Your task to perform on an android device: toggle data saver in the chrome app Image 0: 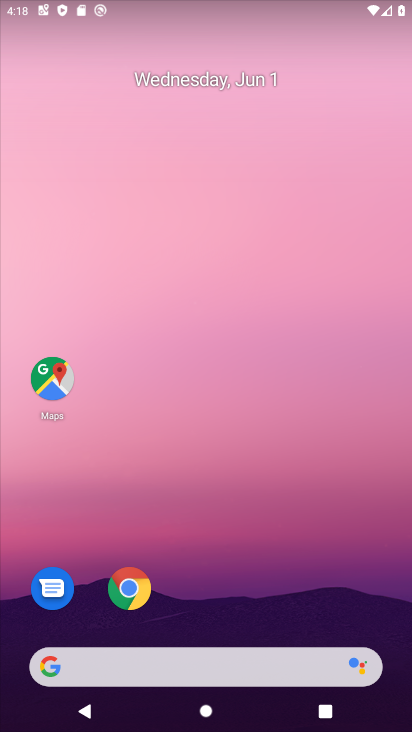
Step 0: click (137, 602)
Your task to perform on an android device: toggle data saver in the chrome app Image 1: 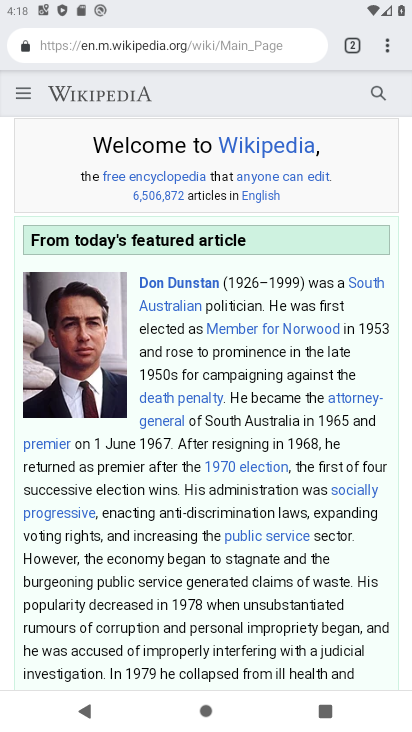
Step 1: click (390, 44)
Your task to perform on an android device: toggle data saver in the chrome app Image 2: 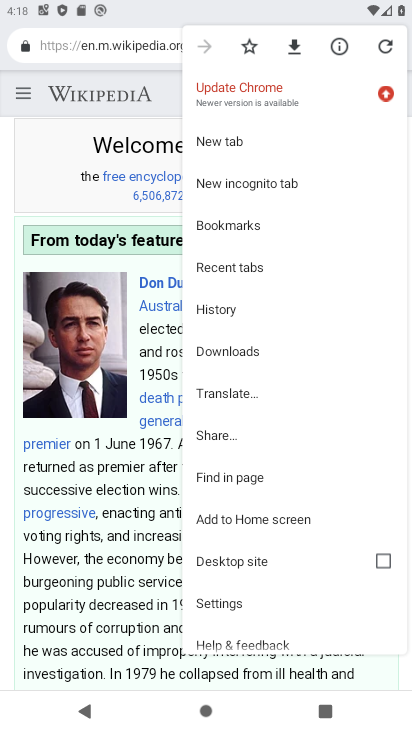
Step 2: click (260, 595)
Your task to perform on an android device: toggle data saver in the chrome app Image 3: 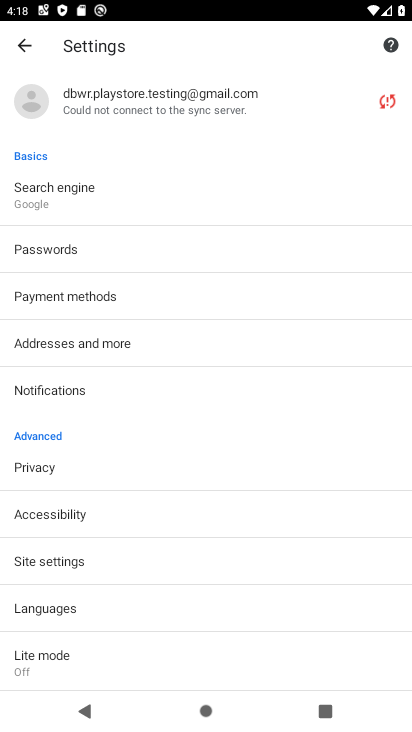
Step 3: drag from (172, 629) to (158, 394)
Your task to perform on an android device: toggle data saver in the chrome app Image 4: 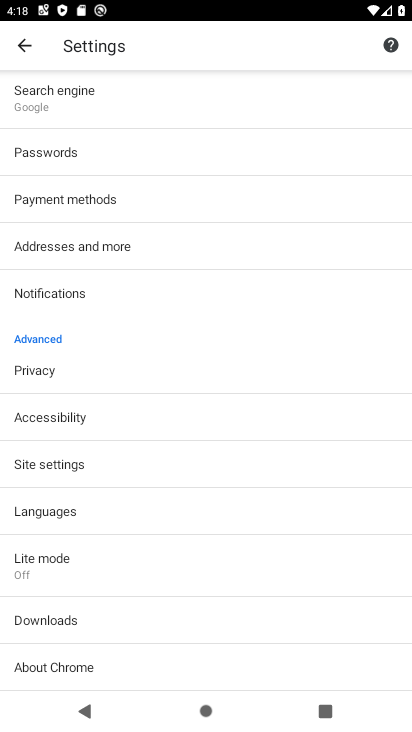
Step 4: click (121, 553)
Your task to perform on an android device: toggle data saver in the chrome app Image 5: 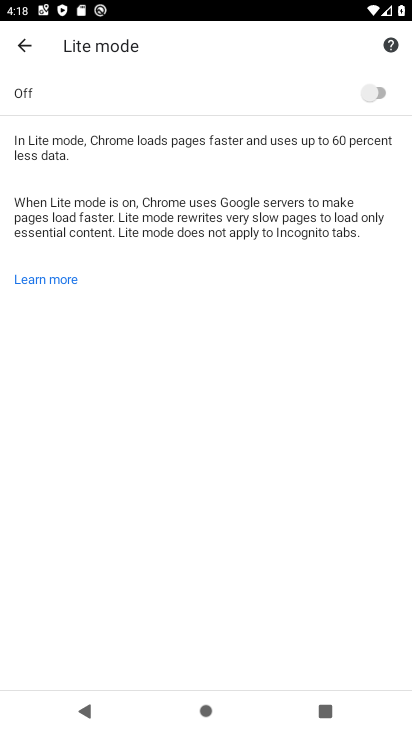
Step 5: click (380, 90)
Your task to perform on an android device: toggle data saver in the chrome app Image 6: 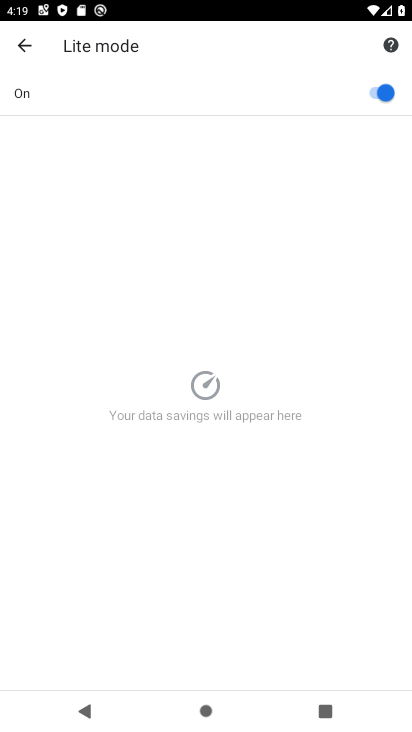
Step 6: task complete